Your task to perform on an android device: Open my contact list Image 0: 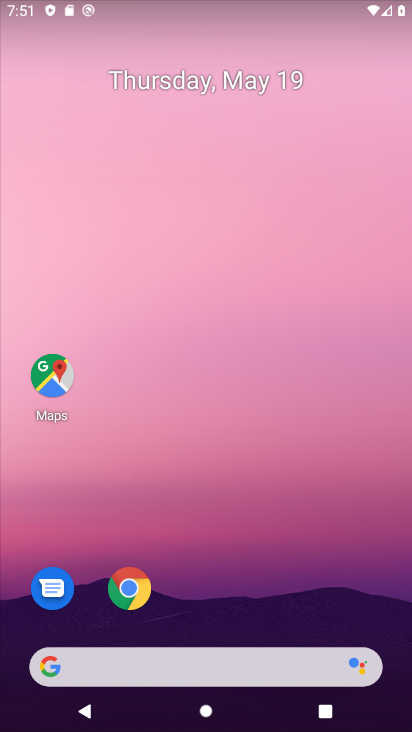
Step 0: drag from (299, 591) to (266, 224)
Your task to perform on an android device: Open my contact list Image 1: 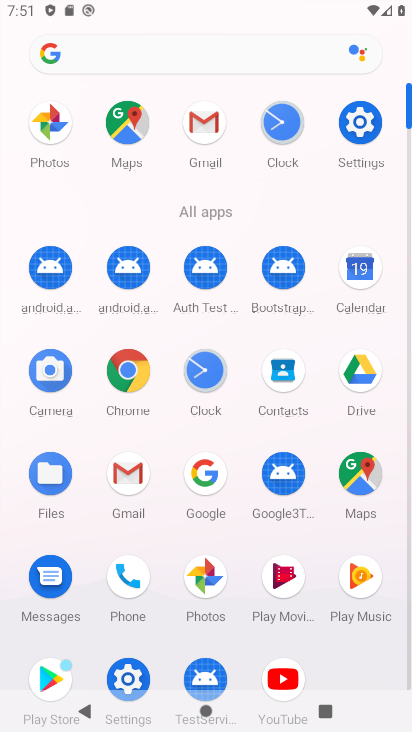
Step 1: click (125, 571)
Your task to perform on an android device: Open my contact list Image 2: 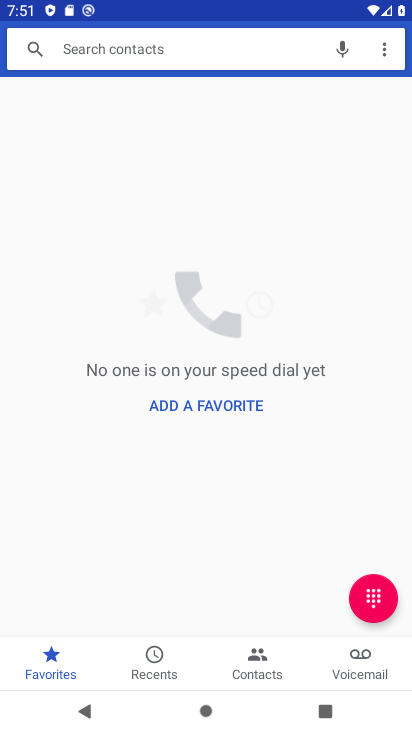
Step 2: click (248, 660)
Your task to perform on an android device: Open my contact list Image 3: 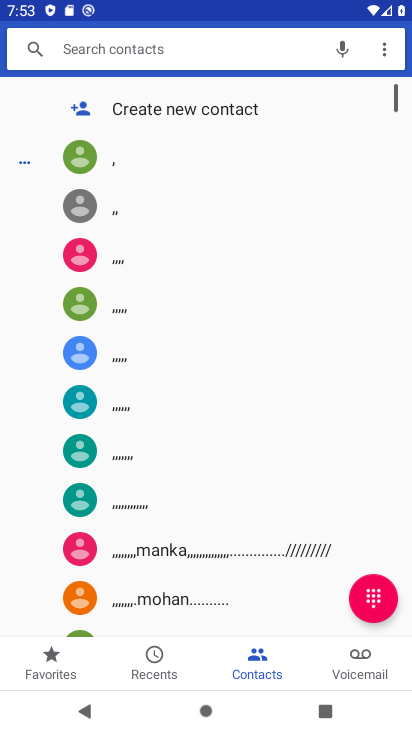
Step 3: task complete